Your task to perform on an android device: Search for lg ultragear on bestbuy.com, select the first entry, and add it to the cart. Image 0: 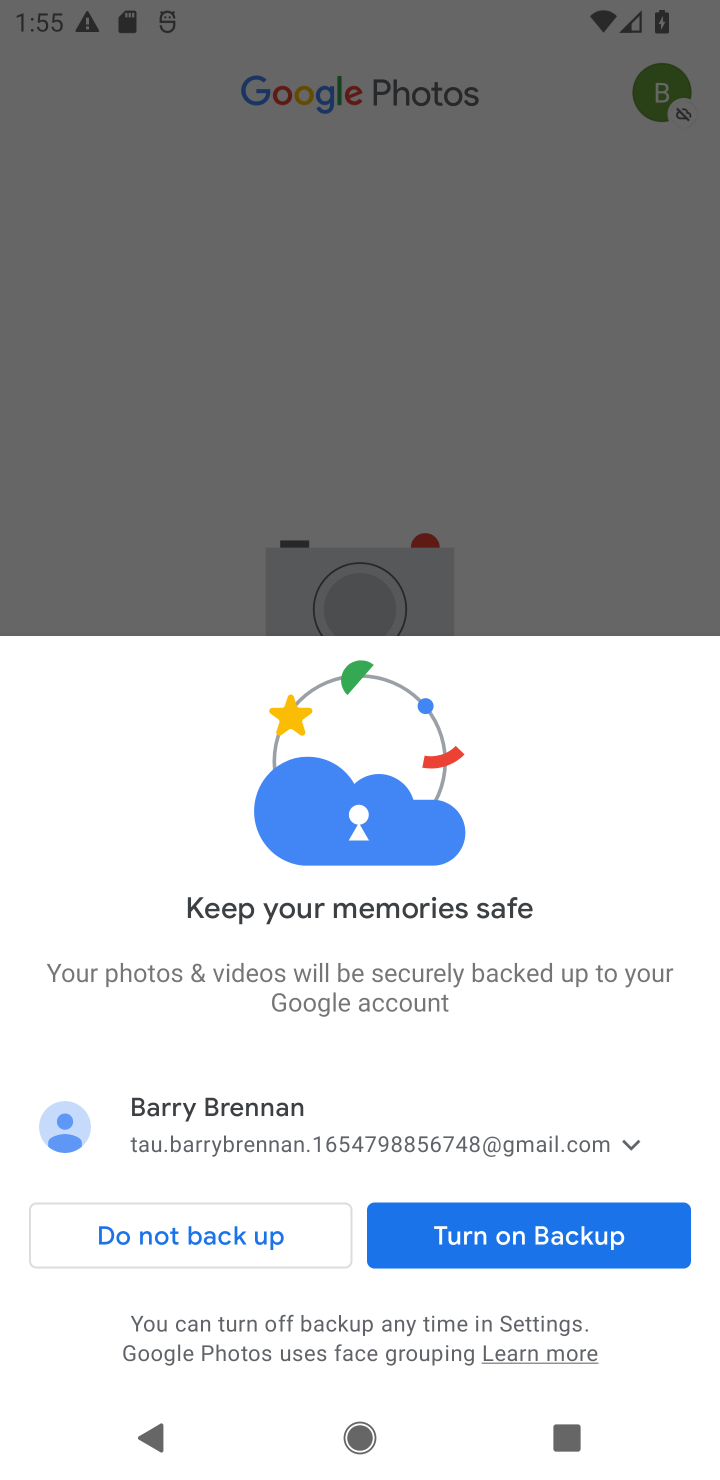
Step 0: press home button
Your task to perform on an android device: Search for lg ultragear on bestbuy.com, select the first entry, and add it to the cart. Image 1: 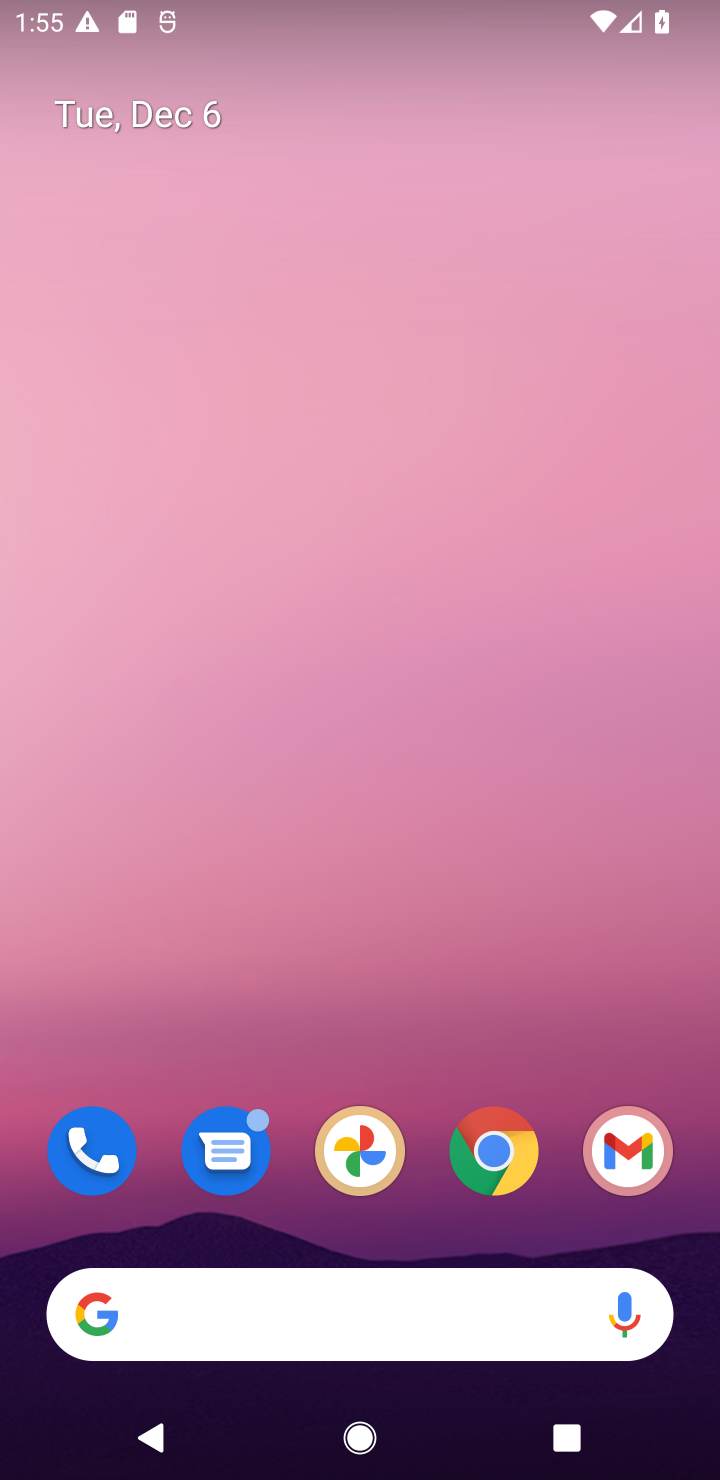
Step 1: click (504, 1151)
Your task to perform on an android device: Search for lg ultragear on bestbuy.com, select the first entry, and add it to the cart. Image 2: 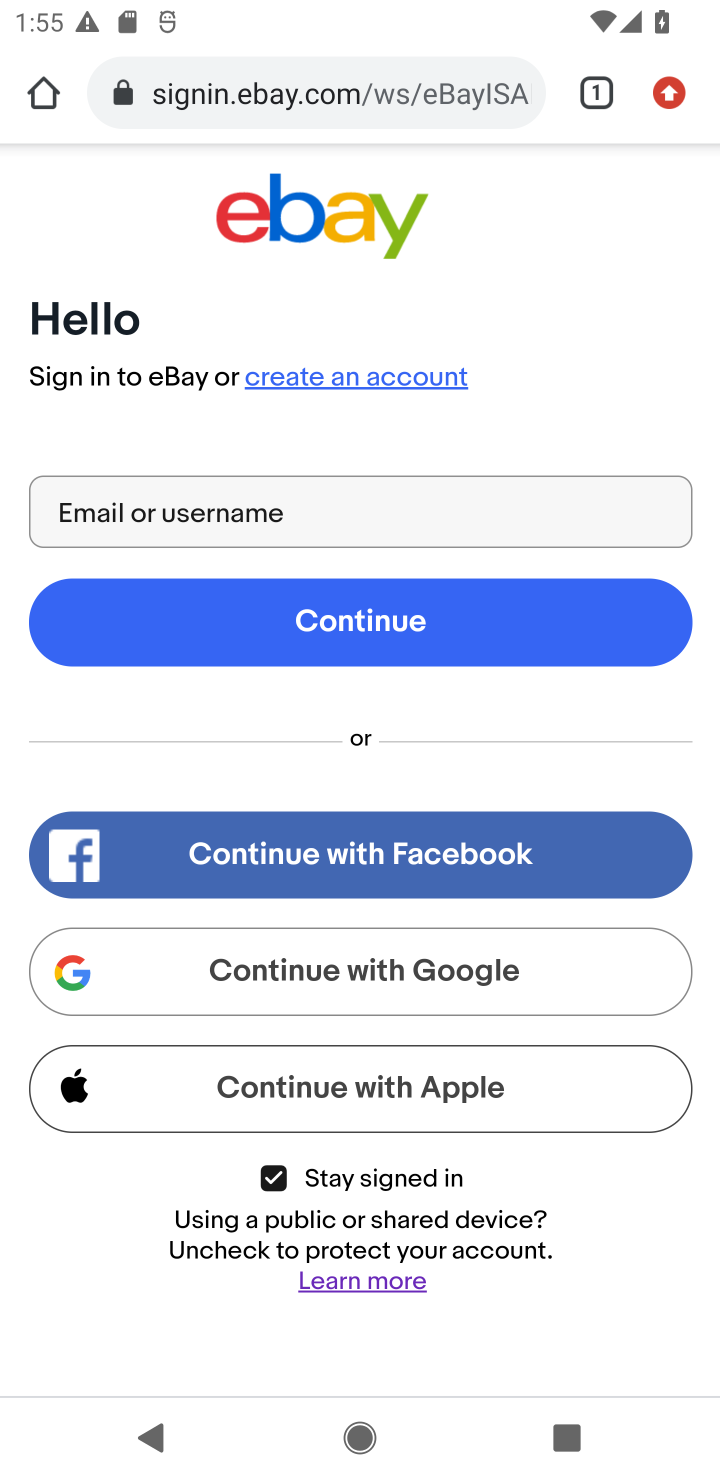
Step 2: click (316, 90)
Your task to perform on an android device: Search for lg ultragear on bestbuy.com, select the first entry, and add it to the cart. Image 3: 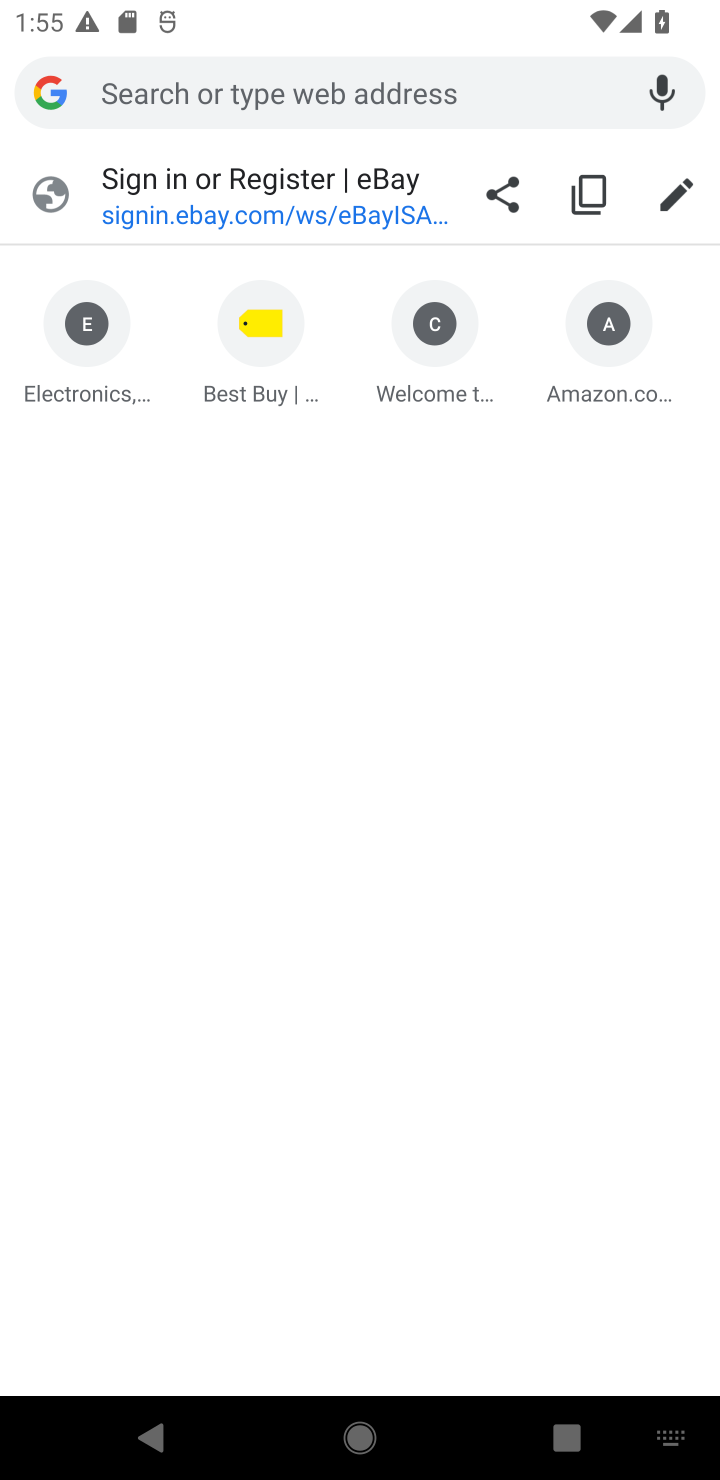
Step 3: click (261, 335)
Your task to perform on an android device: Search for lg ultragear on bestbuy.com, select the first entry, and add it to the cart. Image 4: 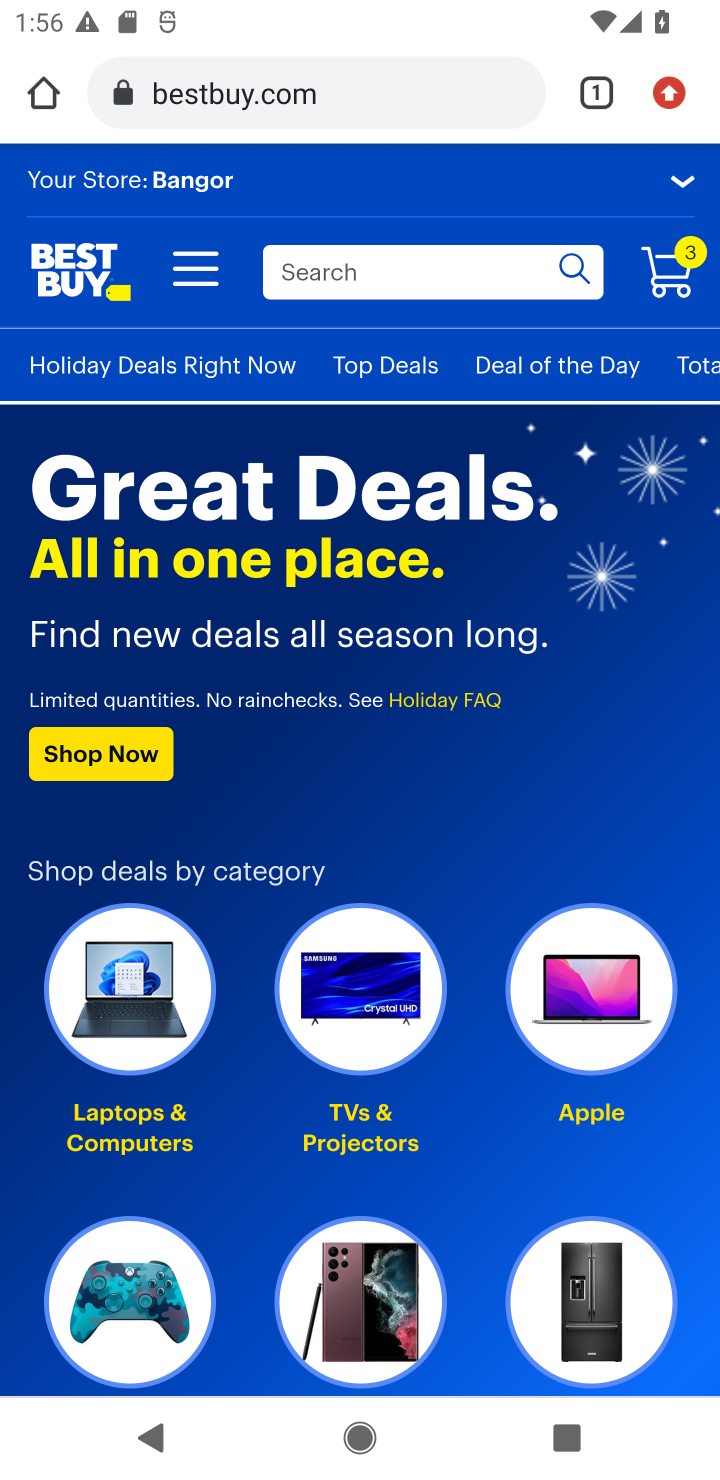
Step 4: click (332, 270)
Your task to perform on an android device: Search for lg ultragear on bestbuy.com, select the first entry, and add it to the cart. Image 5: 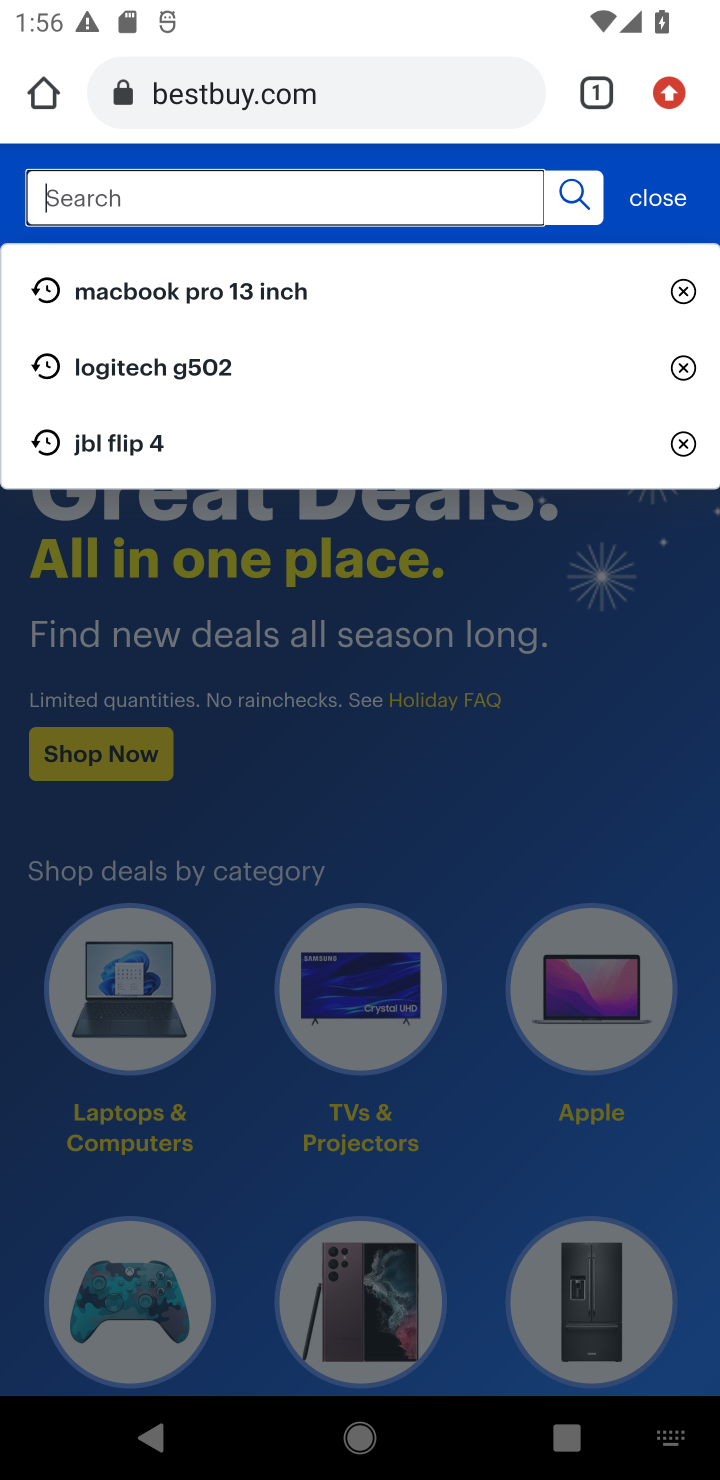
Step 5: type "lg ultragear"
Your task to perform on an android device: Search for lg ultragear on bestbuy.com, select the first entry, and add it to the cart. Image 6: 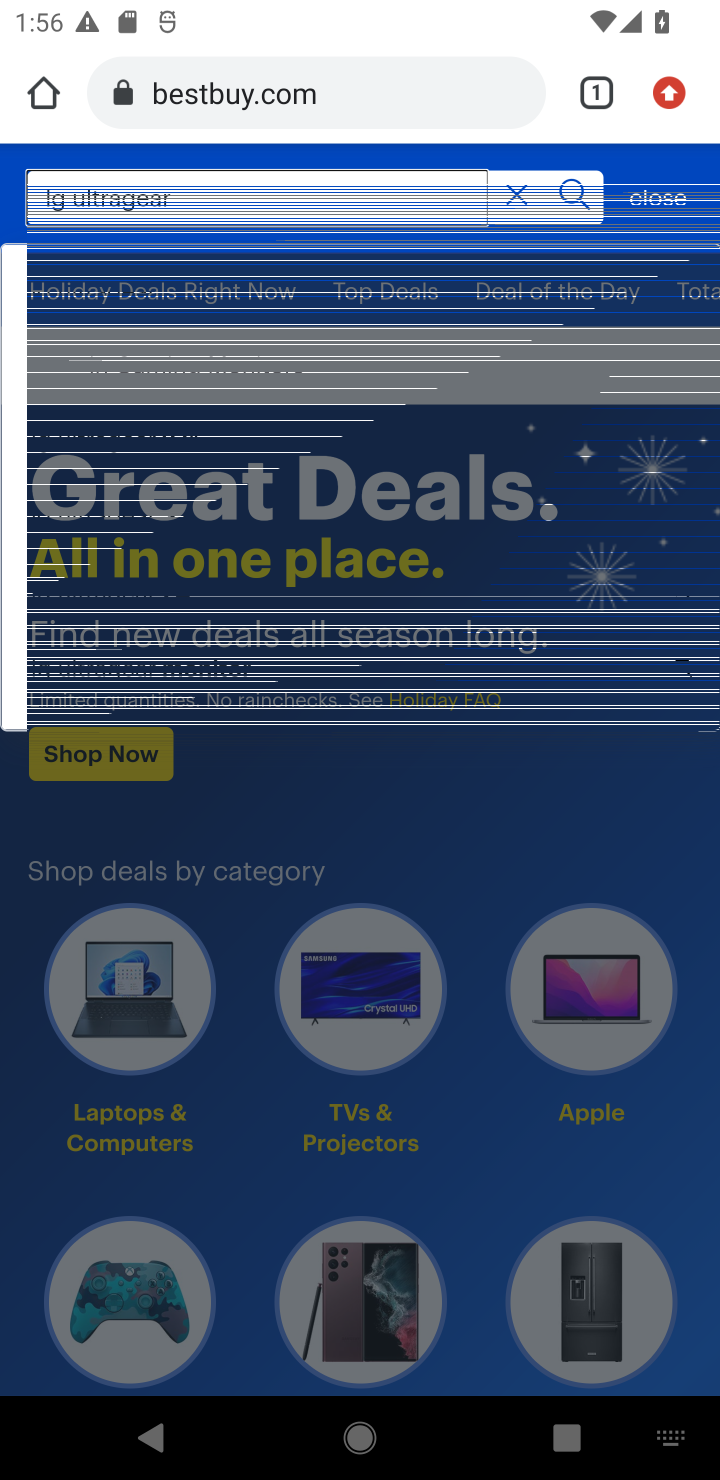
Step 6: click (84, 288)
Your task to perform on an android device: Search for lg ultragear on bestbuy.com, select the first entry, and add it to the cart. Image 7: 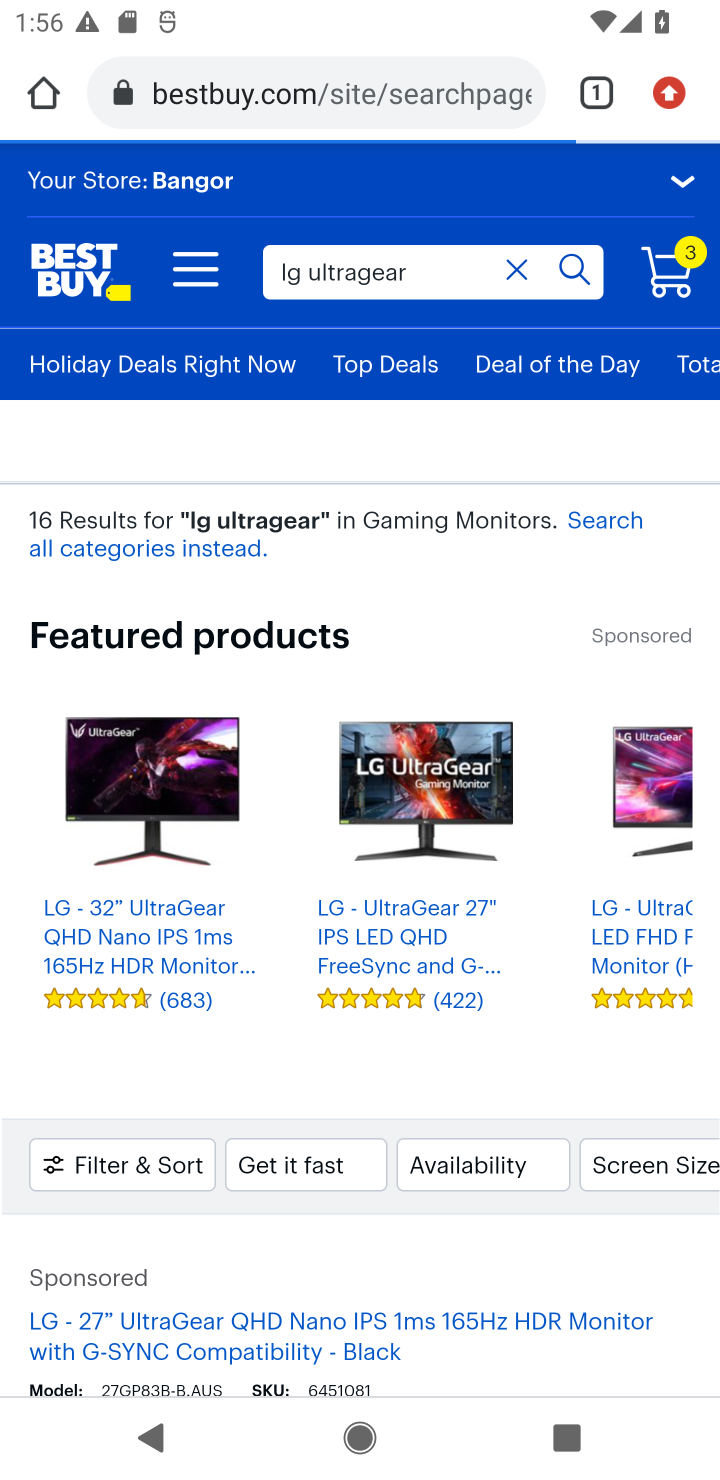
Step 7: drag from (332, 1162) to (352, 442)
Your task to perform on an android device: Search for lg ultragear on bestbuy.com, select the first entry, and add it to the cart. Image 8: 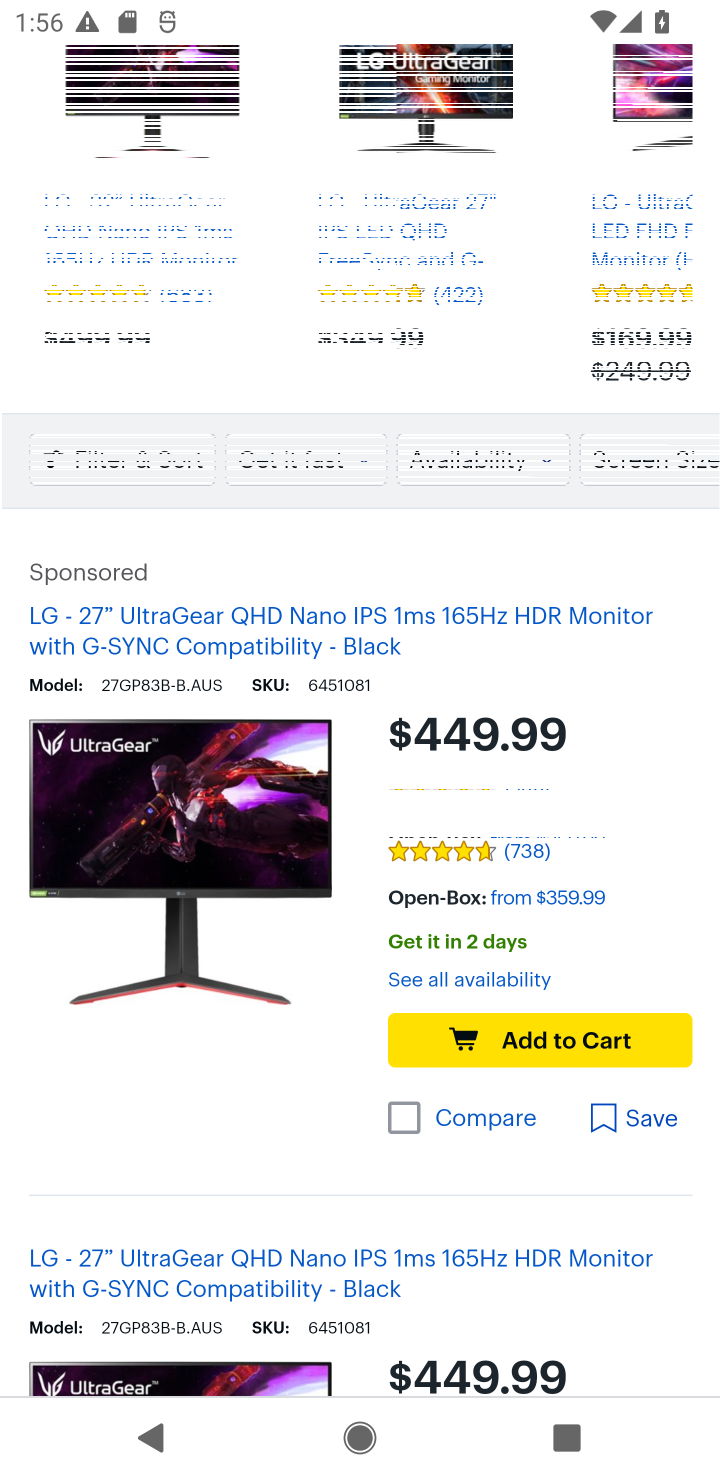
Step 8: click (439, 970)
Your task to perform on an android device: Search for lg ultragear on bestbuy.com, select the first entry, and add it to the cart. Image 9: 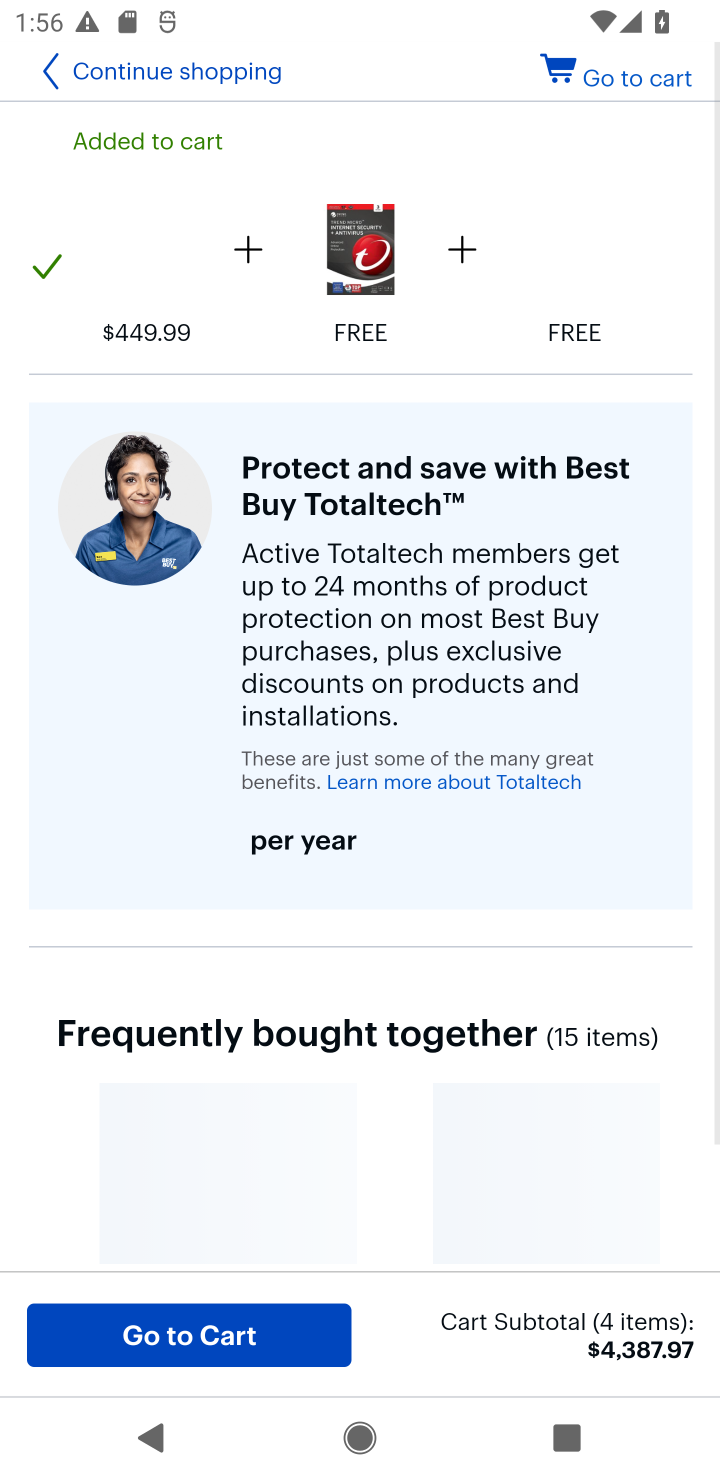
Step 9: task complete